Your task to perform on an android device: open app "WhatsApp Messenger" Image 0: 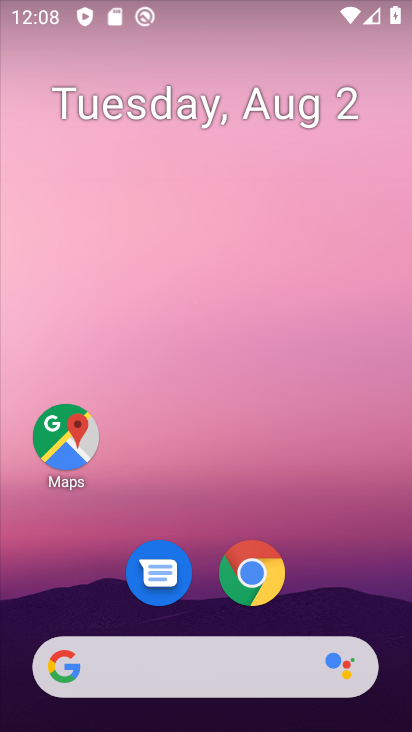
Step 0: drag from (257, 646) to (285, 9)
Your task to perform on an android device: open app "WhatsApp Messenger" Image 1: 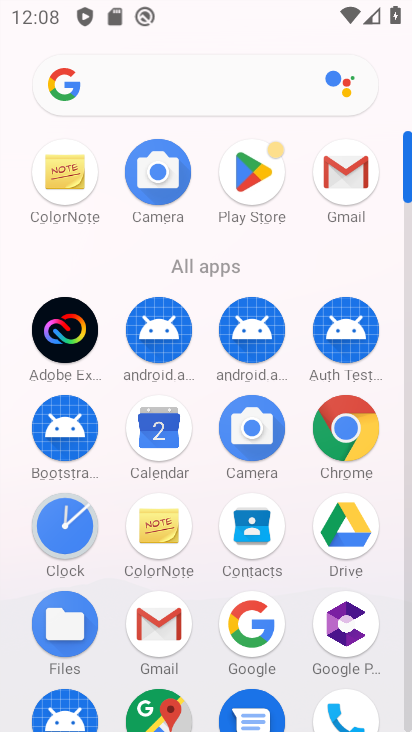
Step 1: click (264, 159)
Your task to perform on an android device: open app "WhatsApp Messenger" Image 2: 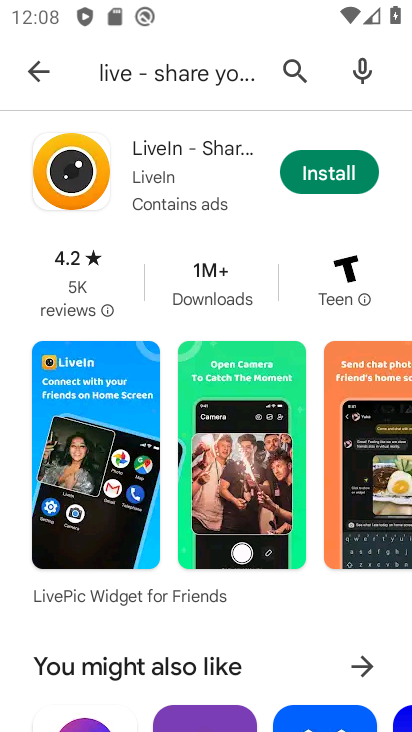
Step 2: click (294, 60)
Your task to perform on an android device: open app "WhatsApp Messenger" Image 3: 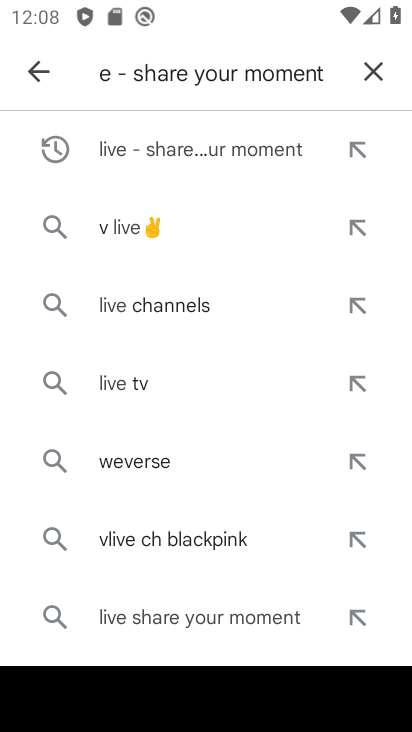
Step 3: click (375, 65)
Your task to perform on an android device: open app "WhatsApp Messenger" Image 4: 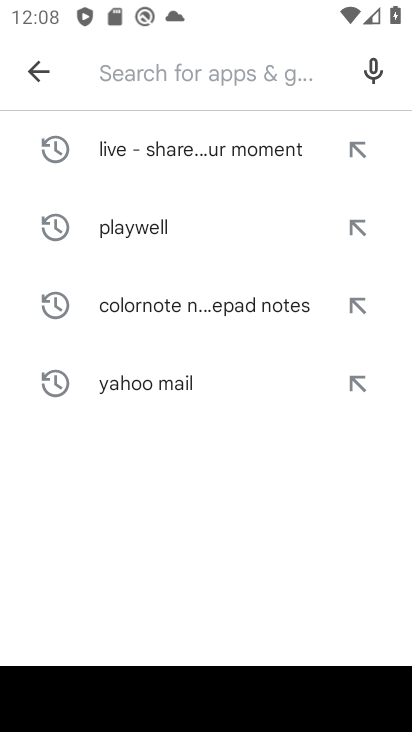
Step 4: type "whatsapp messenger"
Your task to perform on an android device: open app "WhatsApp Messenger" Image 5: 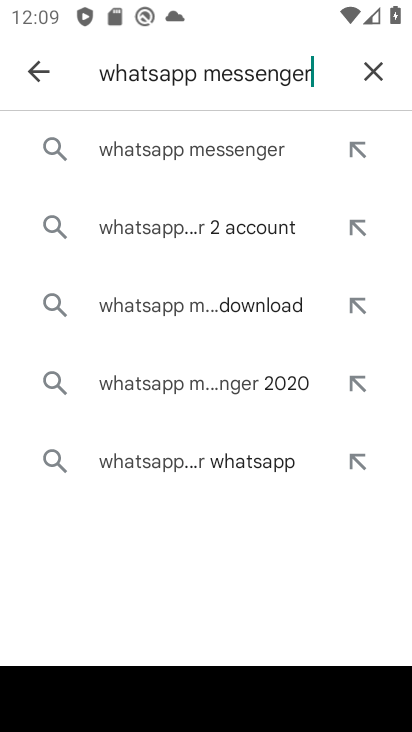
Step 5: click (175, 146)
Your task to perform on an android device: open app "WhatsApp Messenger" Image 6: 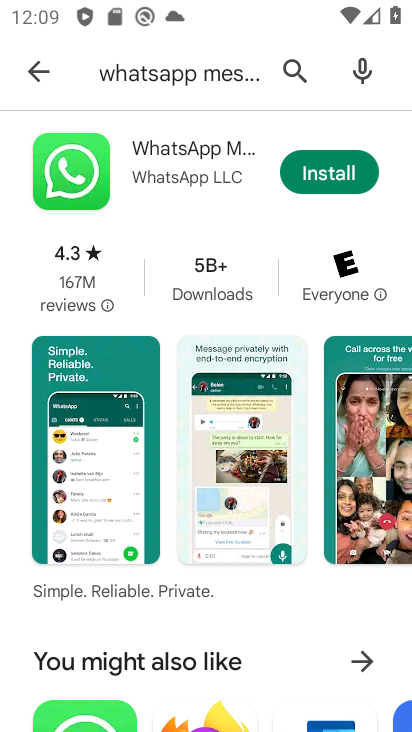
Step 6: task complete